Your task to perform on an android device: open chrome and create a bookmark for the current page Image 0: 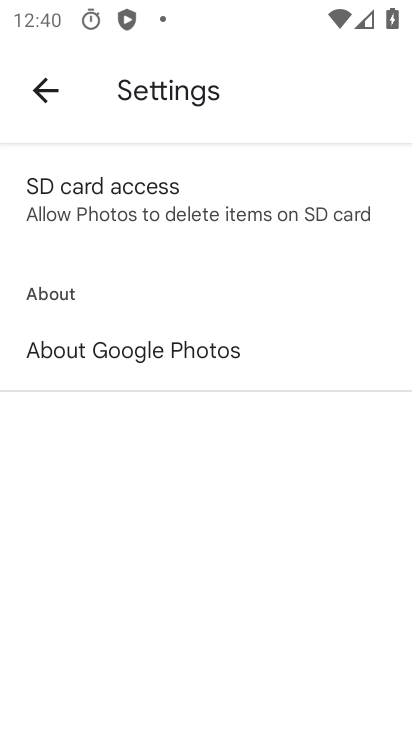
Step 0: press home button
Your task to perform on an android device: open chrome and create a bookmark for the current page Image 1: 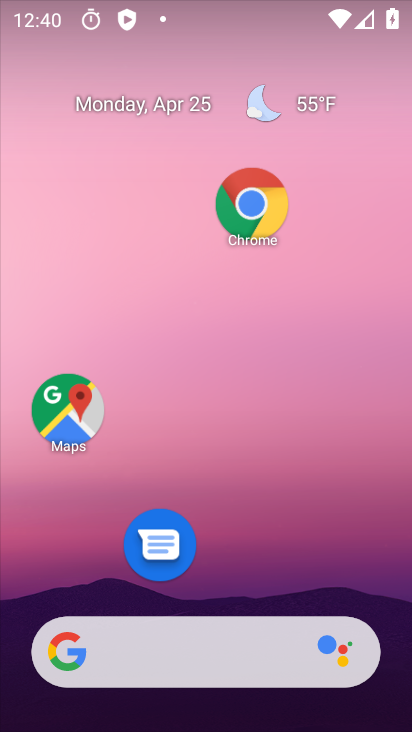
Step 1: drag from (282, 697) to (308, 112)
Your task to perform on an android device: open chrome and create a bookmark for the current page Image 2: 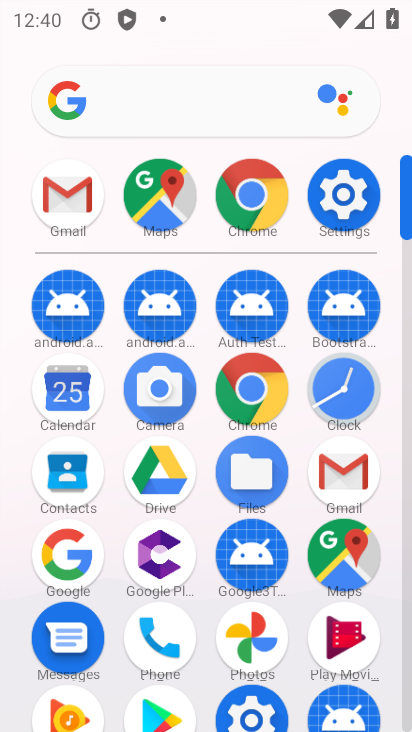
Step 2: click (244, 198)
Your task to perform on an android device: open chrome and create a bookmark for the current page Image 3: 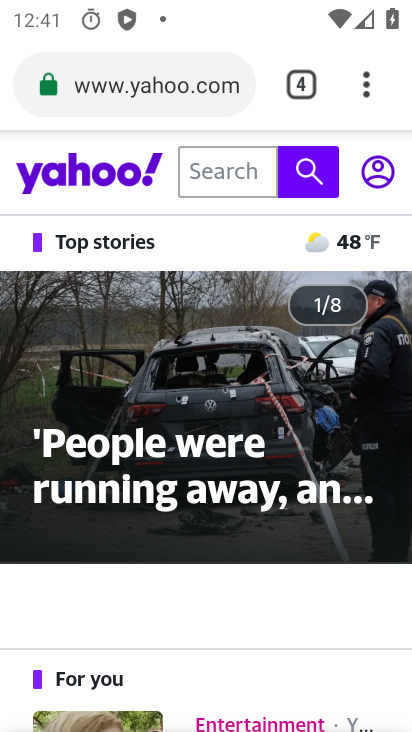
Step 3: click (360, 102)
Your task to perform on an android device: open chrome and create a bookmark for the current page Image 4: 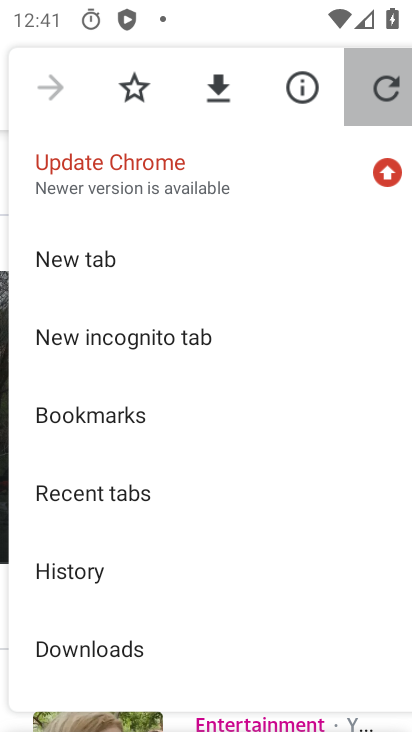
Step 4: click (367, 93)
Your task to perform on an android device: open chrome and create a bookmark for the current page Image 5: 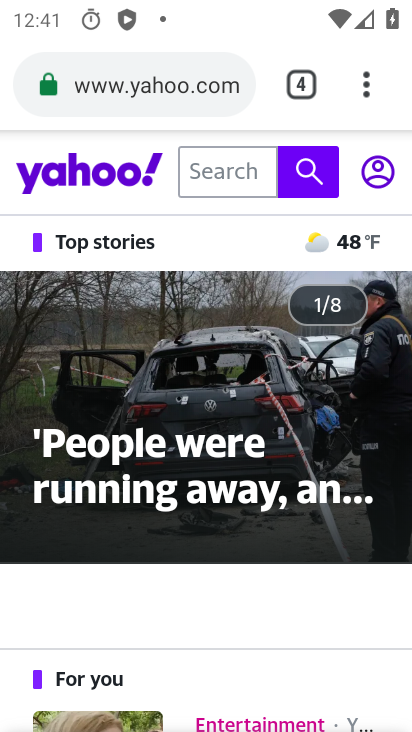
Step 5: click (359, 84)
Your task to perform on an android device: open chrome and create a bookmark for the current page Image 6: 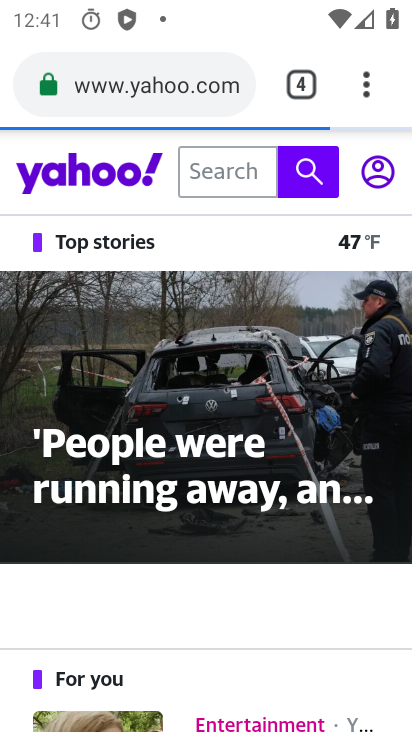
Step 6: click (358, 95)
Your task to perform on an android device: open chrome and create a bookmark for the current page Image 7: 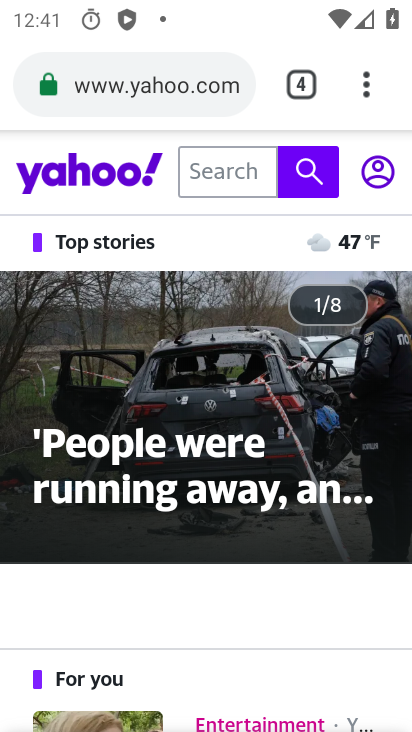
Step 7: click (360, 93)
Your task to perform on an android device: open chrome and create a bookmark for the current page Image 8: 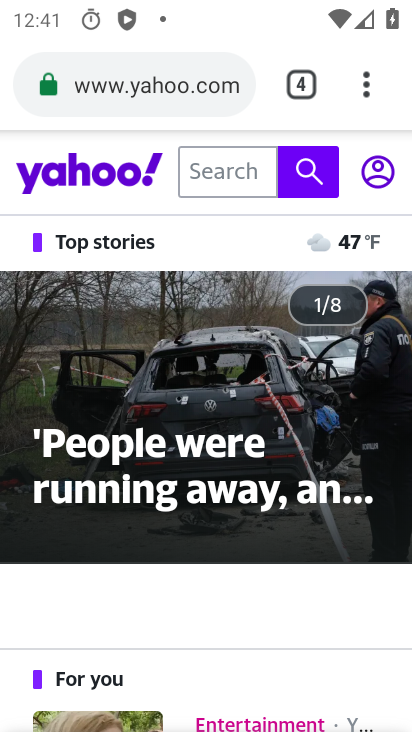
Step 8: click (369, 88)
Your task to perform on an android device: open chrome and create a bookmark for the current page Image 9: 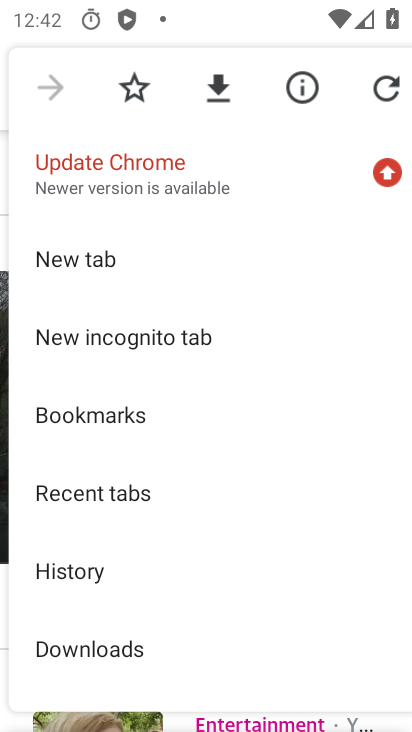
Step 9: drag from (141, 549) to (176, 404)
Your task to perform on an android device: open chrome and create a bookmark for the current page Image 10: 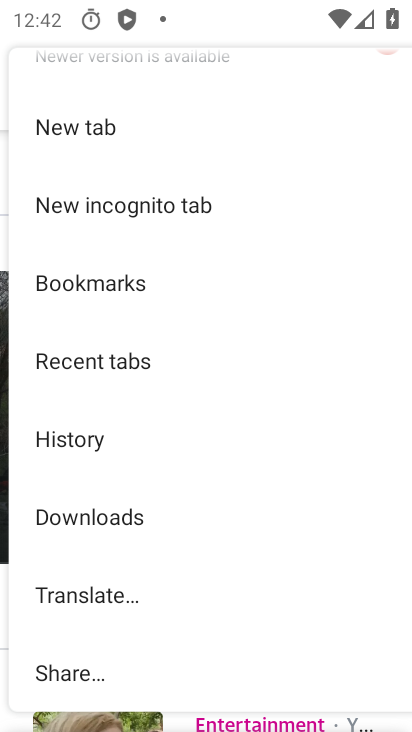
Step 10: click (123, 294)
Your task to perform on an android device: open chrome and create a bookmark for the current page Image 11: 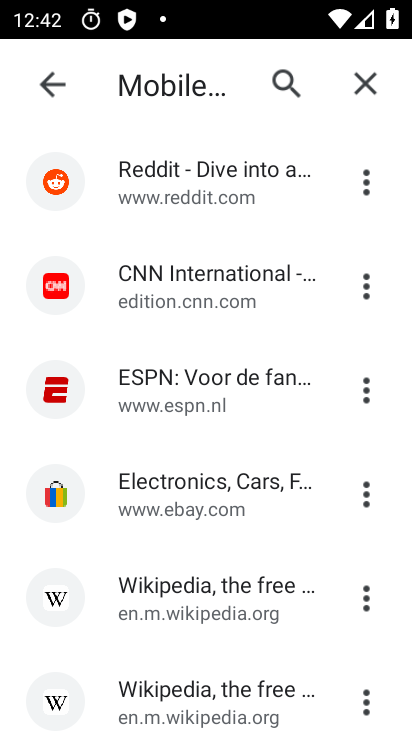
Step 11: task complete